Your task to perform on an android device: Set the phone to "Do not disturb". Image 0: 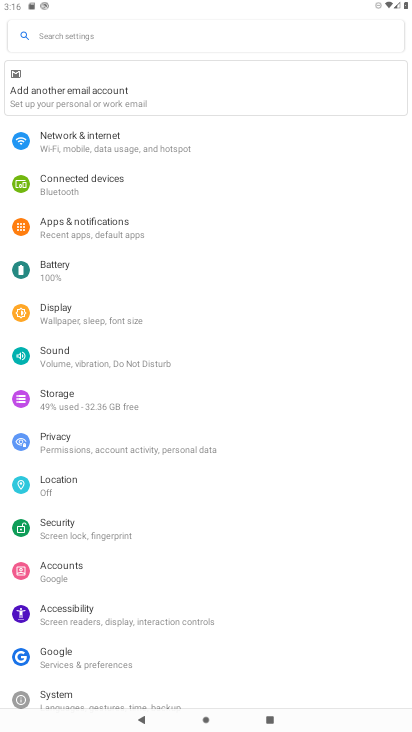
Step 0: click (105, 357)
Your task to perform on an android device: Set the phone to "Do not disturb". Image 1: 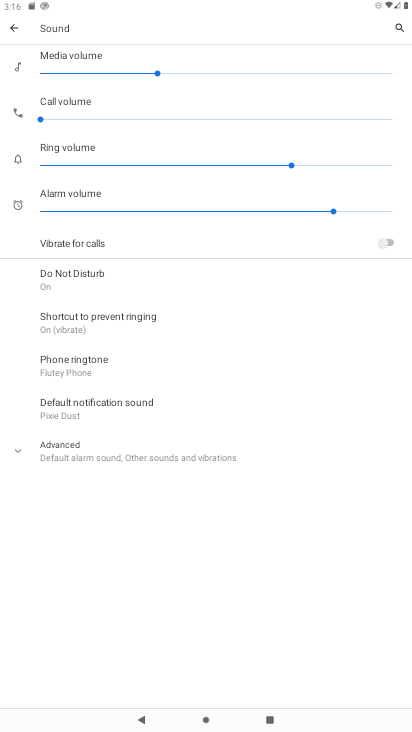
Step 1: click (98, 287)
Your task to perform on an android device: Set the phone to "Do not disturb". Image 2: 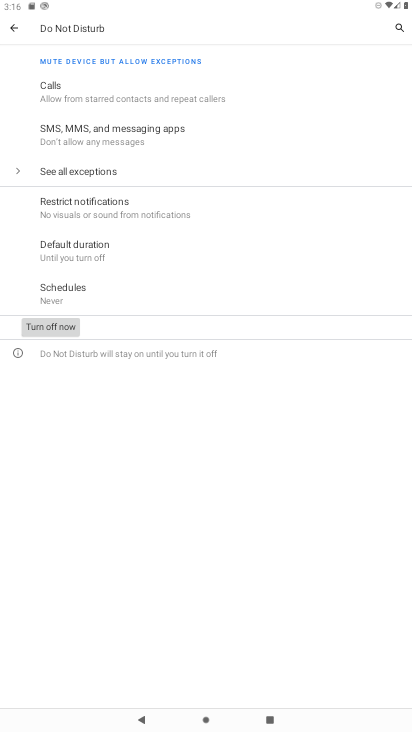
Step 2: task complete